Your task to perform on an android device: turn off airplane mode Image 0: 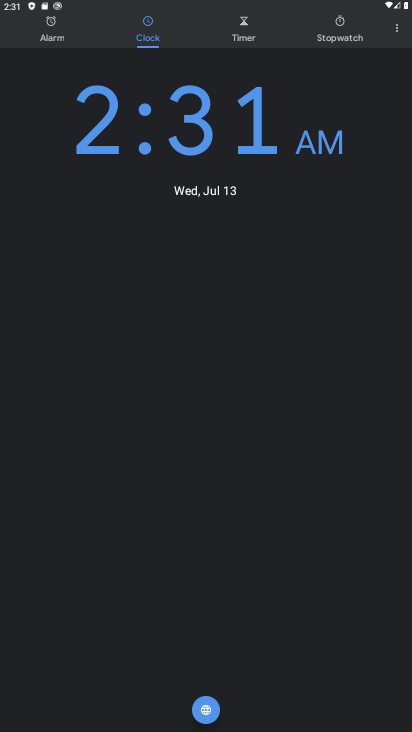
Step 0: press home button
Your task to perform on an android device: turn off airplane mode Image 1: 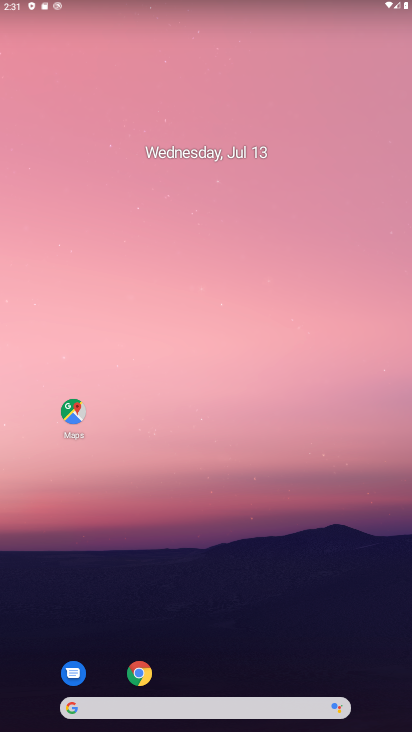
Step 1: drag from (204, 711) to (329, 251)
Your task to perform on an android device: turn off airplane mode Image 2: 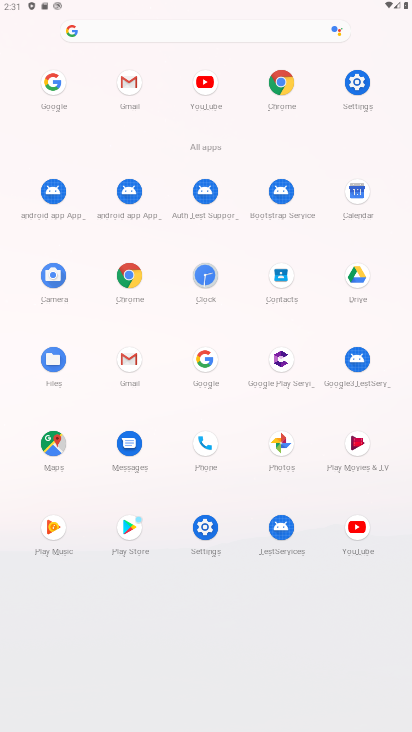
Step 2: click (357, 82)
Your task to perform on an android device: turn off airplane mode Image 3: 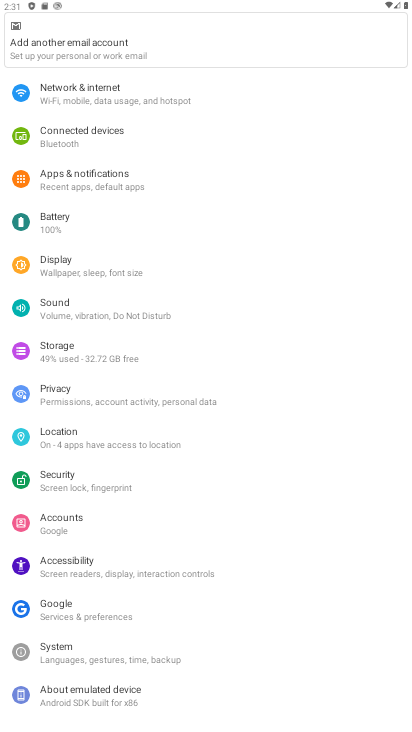
Step 3: click (139, 101)
Your task to perform on an android device: turn off airplane mode Image 4: 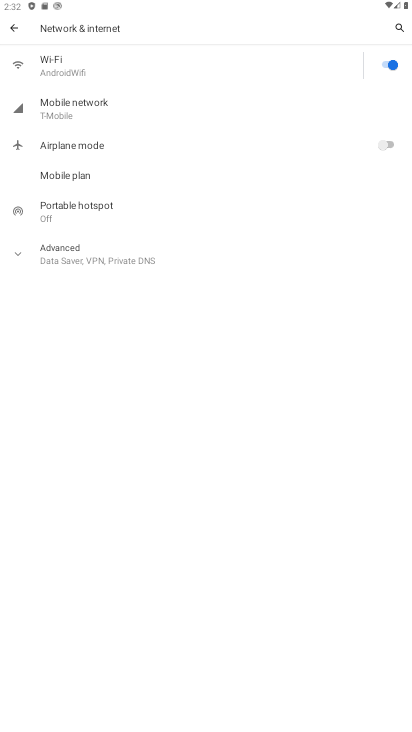
Step 4: task complete